Your task to perform on an android device: Play the last video I watched on Youtube Image 0: 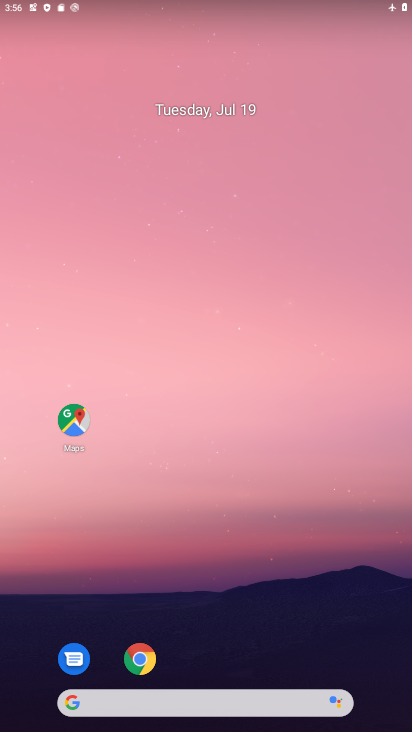
Step 0: drag from (247, 519) to (261, 18)
Your task to perform on an android device: Play the last video I watched on Youtube Image 1: 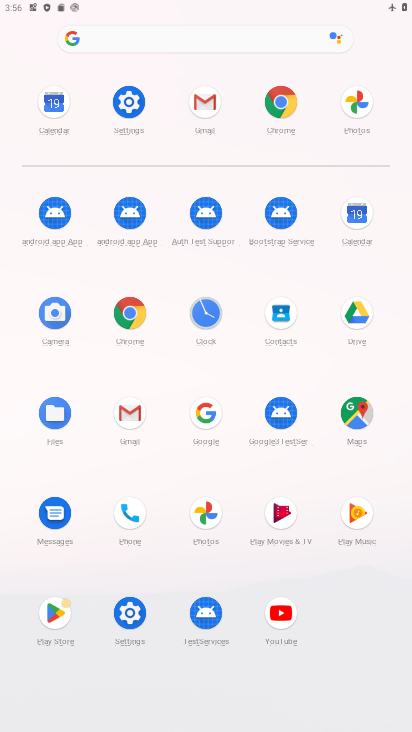
Step 1: click (284, 605)
Your task to perform on an android device: Play the last video I watched on Youtube Image 2: 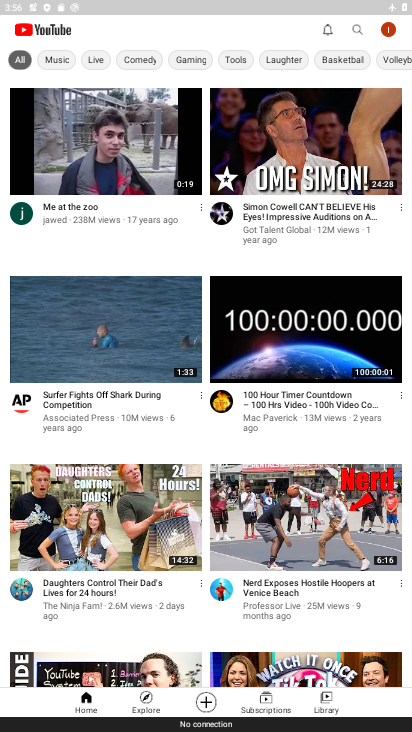
Step 2: click (331, 699)
Your task to perform on an android device: Play the last video I watched on Youtube Image 3: 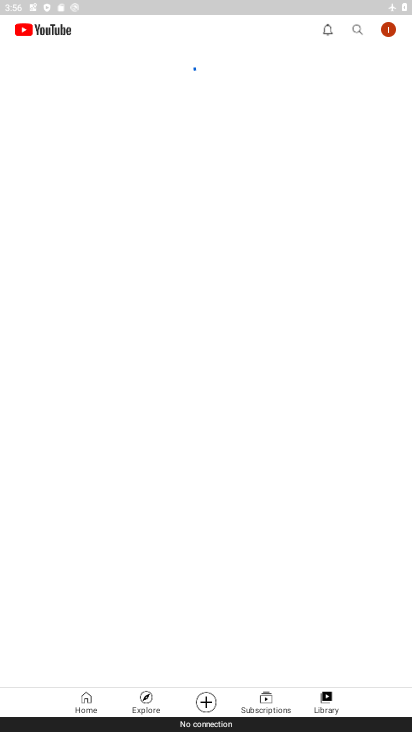
Step 3: drag from (294, 315) to (316, 654)
Your task to perform on an android device: Play the last video I watched on Youtube Image 4: 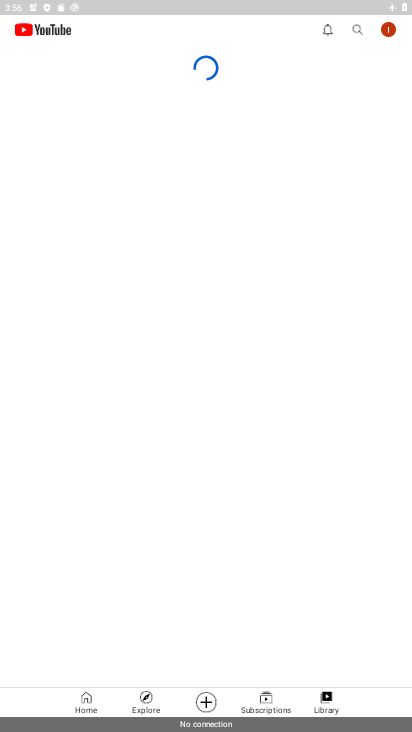
Step 4: click (331, 696)
Your task to perform on an android device: Play the last video I watched on Youtube Image 5: 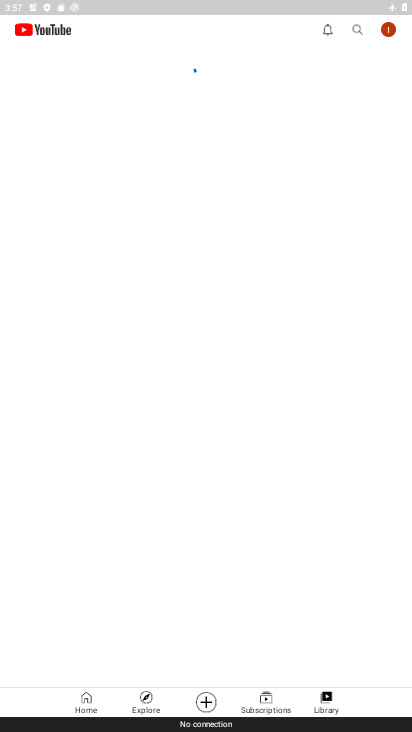
Step 5: task complete